Your task to perform on an android device: Do I have any events today? Image 0: 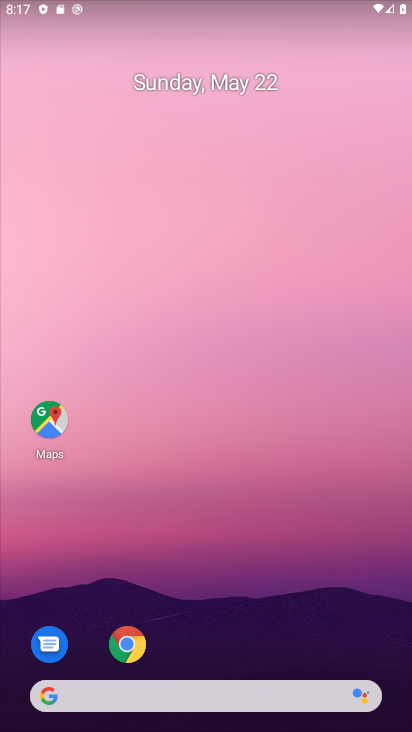
Step 0: drag from (205, 687) to (177, 306)
Your task to perform on an android device: Do I have any events today? Image 1: 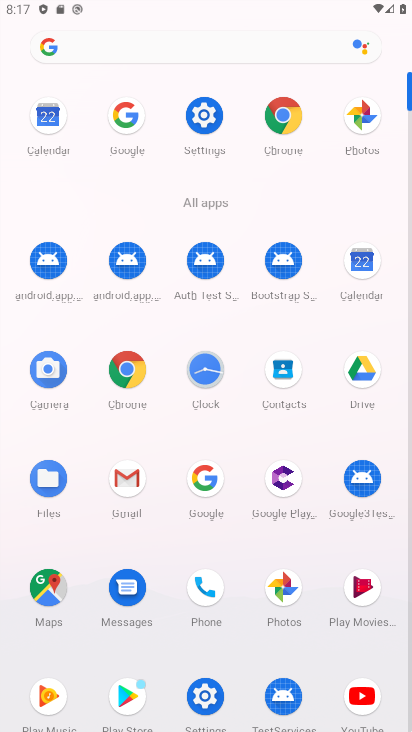
Step 1: click (360, 275)
Your task to perform on an android device: Do I have any events today? Image 2: 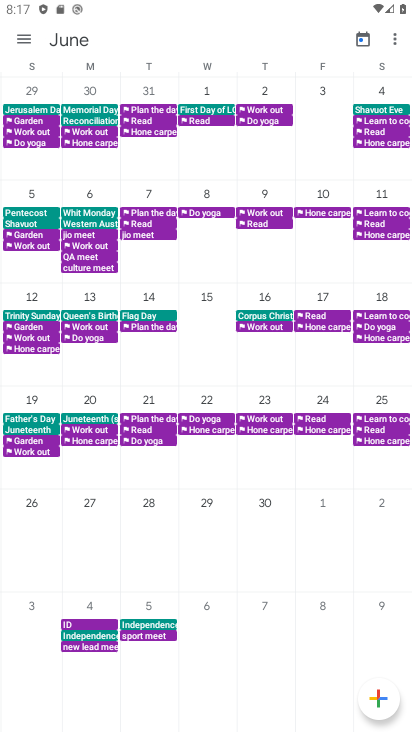
Step 2: drag from (9, 324) to (379, 274)
Your task to perform on an android device: Do I have any events today? Image 3: 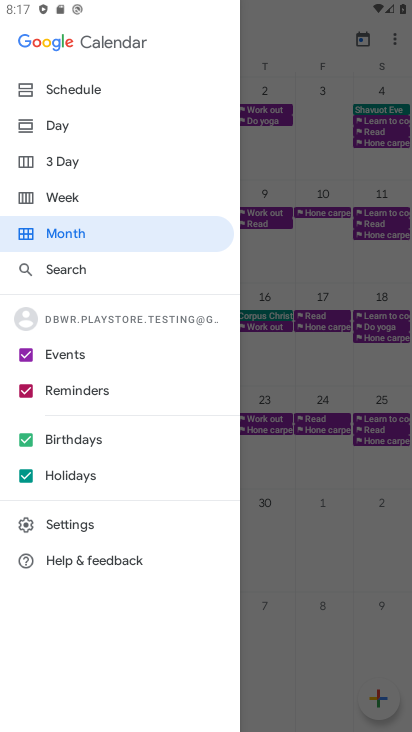
Step 3: click (63, 88)
Your task to perform on an android device: Do I have any events today? Image 4: 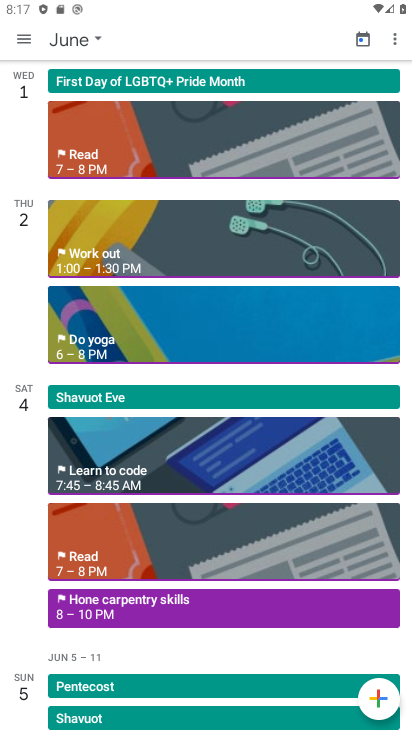
Step 4: click (89, 35)
Your task to perform on an android device: Do I have any events today? Image 5: 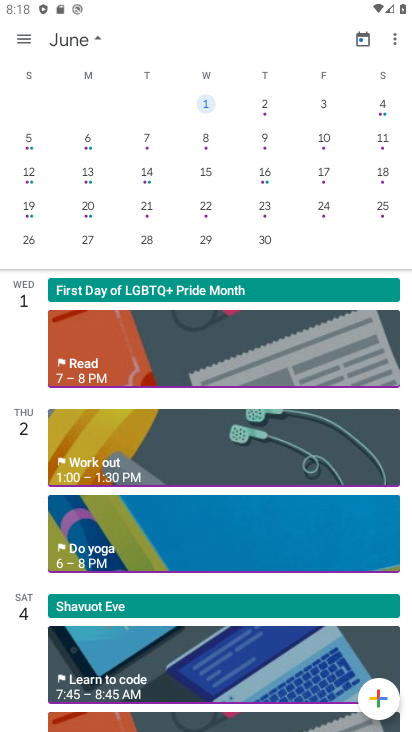
Step 5: drag from (62, 153) to (349, 136)
Your task to perform on an android device: Do I have any events today? Image 6: 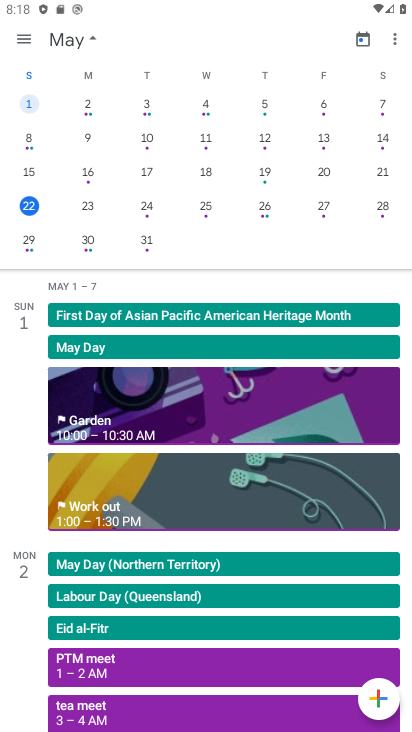
Step 6: click (33, 207)
Your task to perform on an android device: Do I have any events today? Image 7: 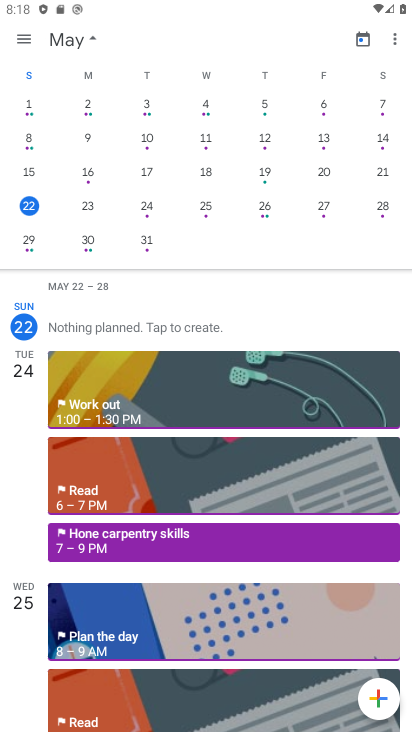
Step 7: click (87, 44)
Your task to perform on an android device: Do I have any events today? Image 8: 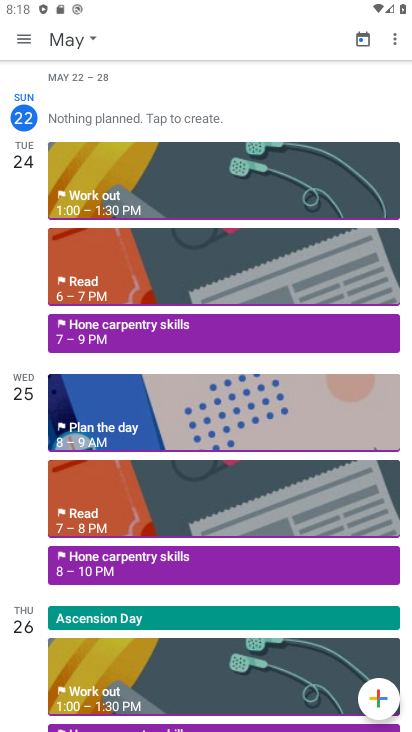
Step 8: task complete